Your task to perform on an android device: Go to network settings Image 0: 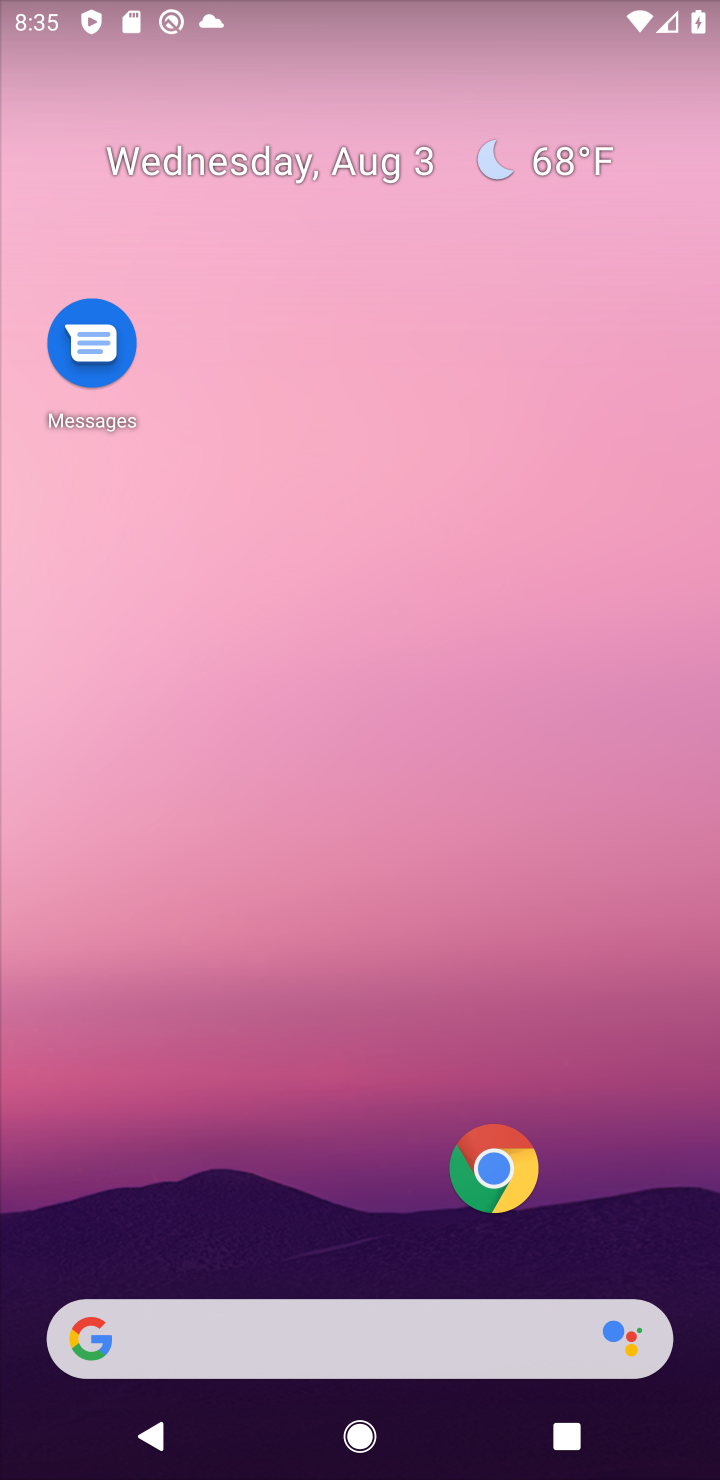
Step 0: drag from (325, 1081) to (309, 8)
Your task to perform on an android device: Go to network settings Image 1: 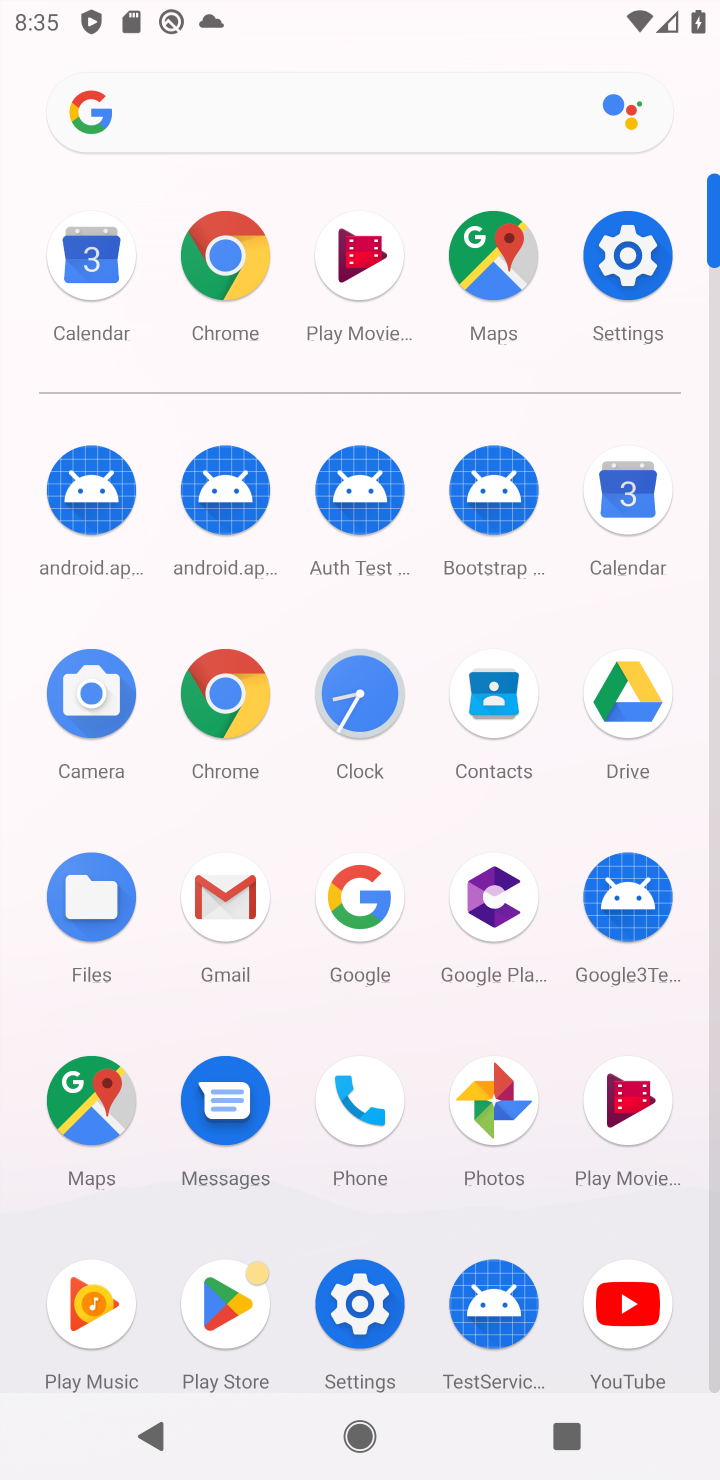
Step 1: click (360, 1322)
Your task to perform on an android device: Go to network settings Image 2: 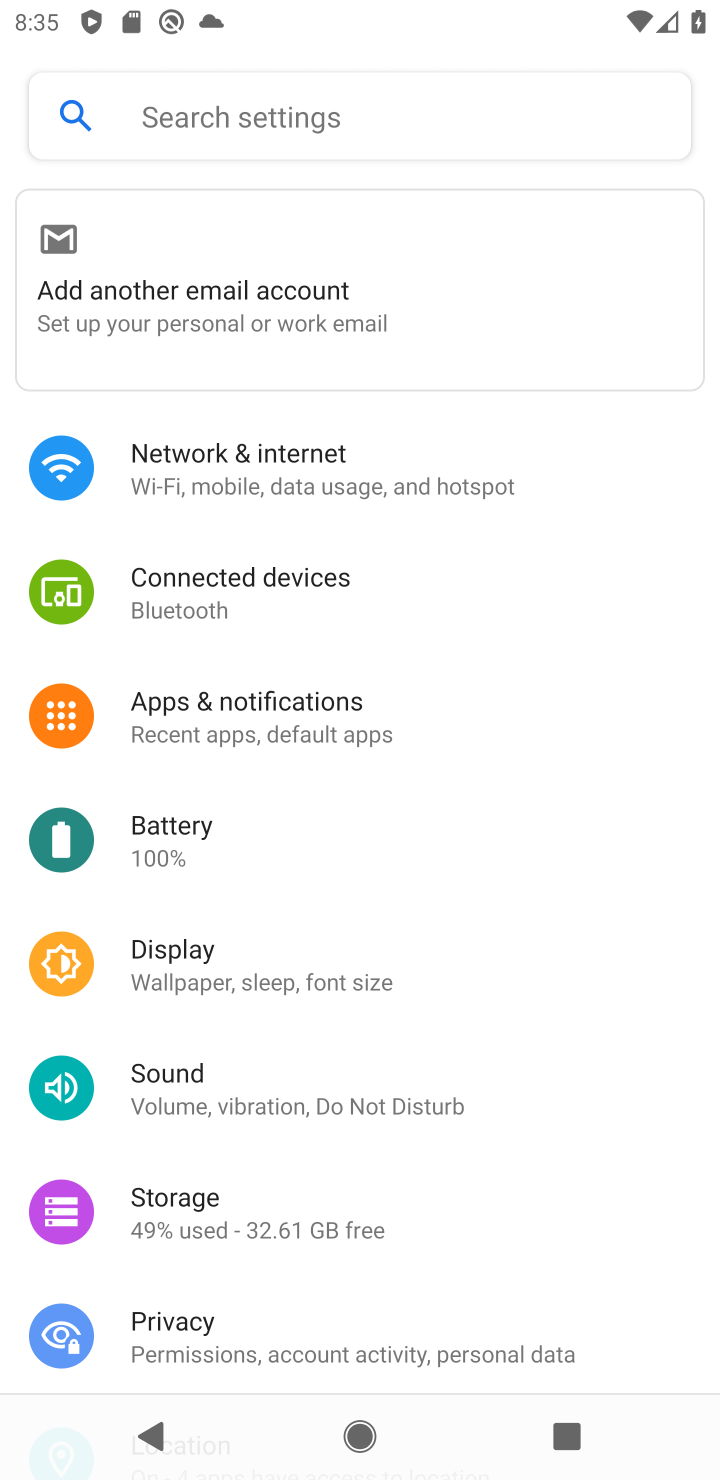
Step 2: click (258, 442)
Your task to perform on an android device: Go to network settings Image 3: 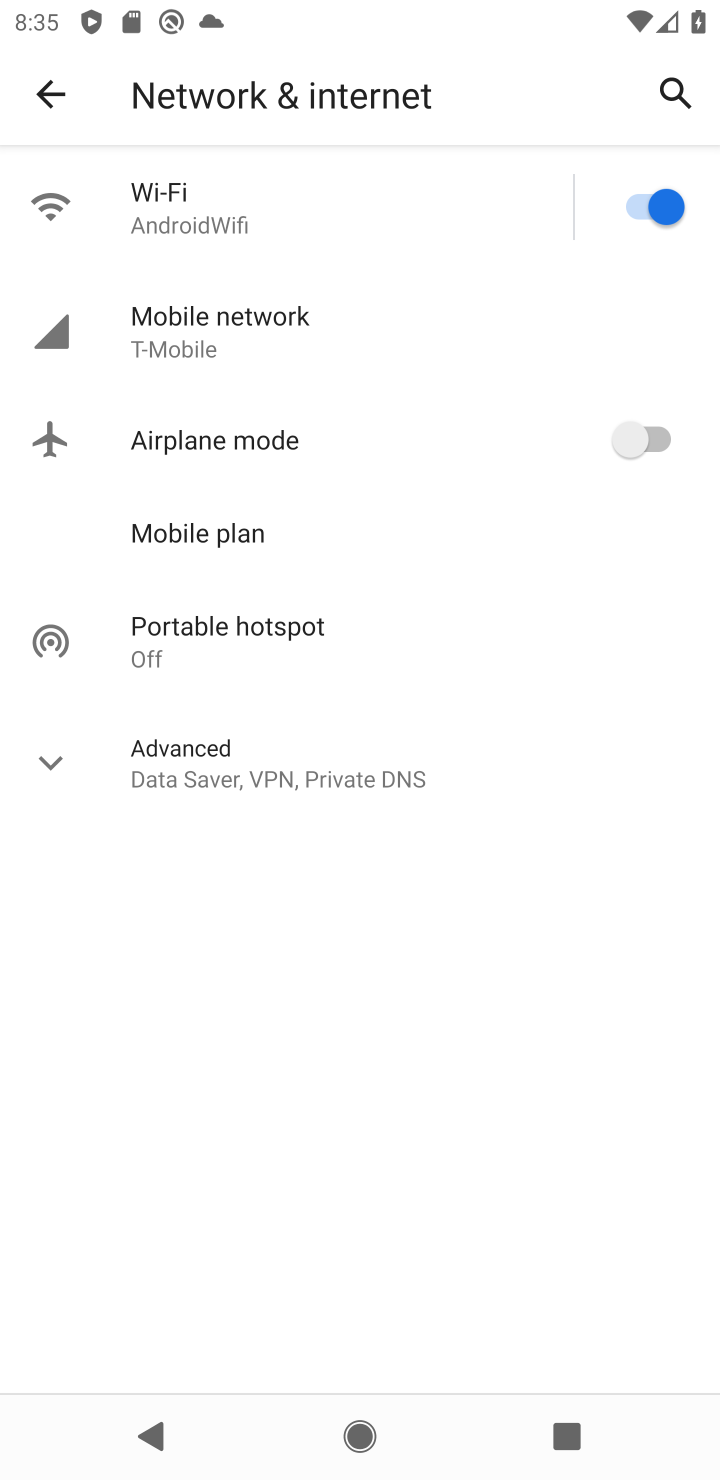
Step 3: click (216, 332)
Your task to perform on an android device: Go to network settings Image 4: 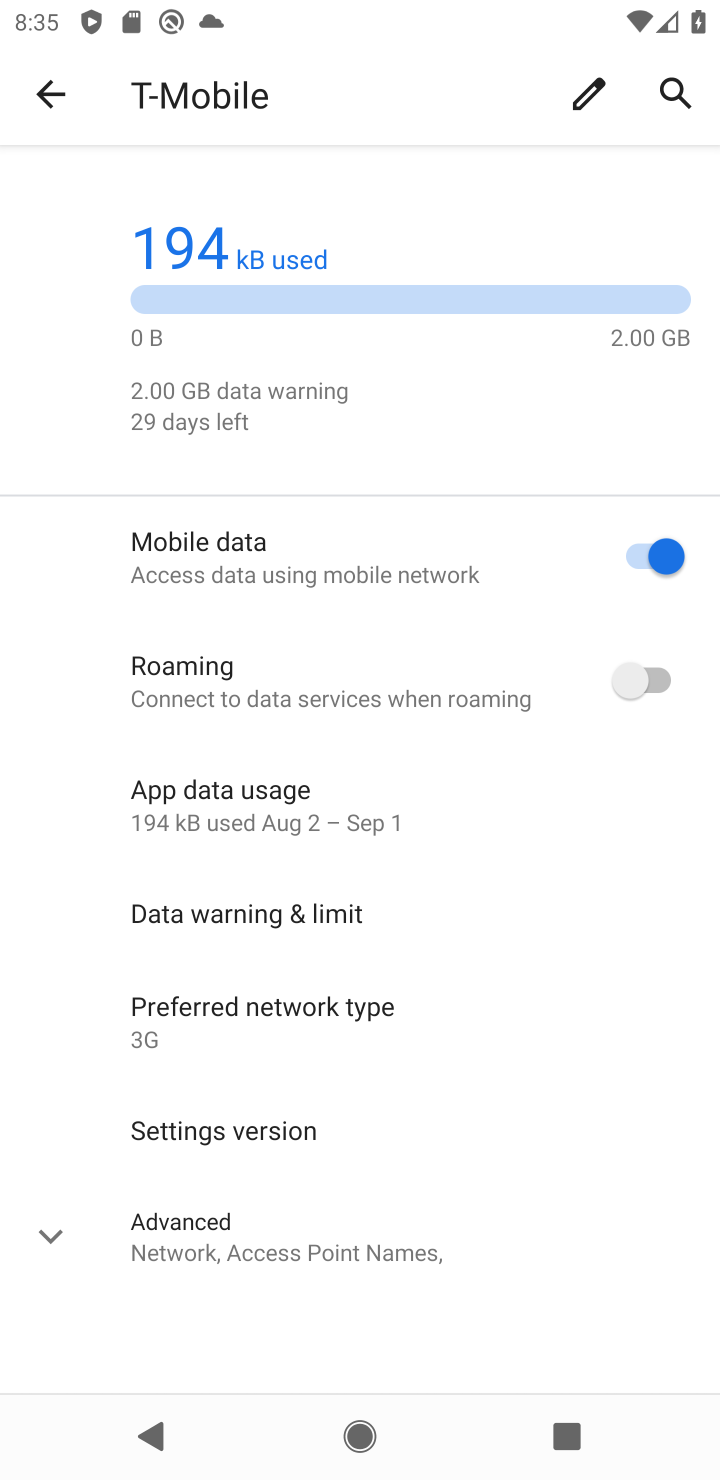
Step 4: task complete